Your task to perform on an android device: turn on improve location accuracy Image 0: 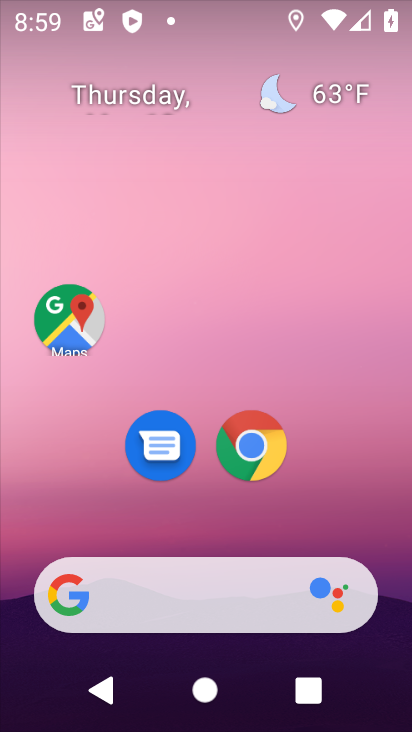
Step 0: drag from (196, 492) to (217, 132)
Your task to perform on an android device: turn on improve location accuracy Image 1: 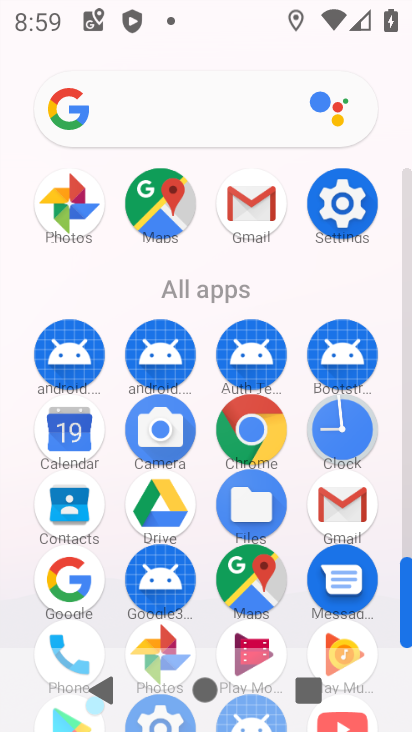
Step 1: click (342, 197)
Your task to perform on an android device: turn on improve location accuracy Image 2: 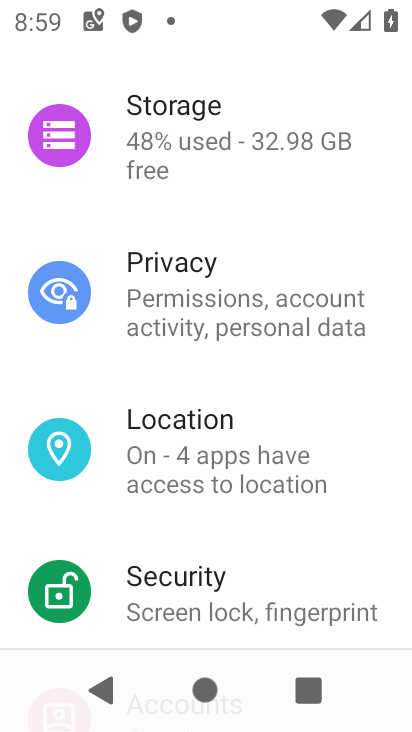
Step 2: click (190, 432)
Your task to perform on an android device: turn on improve location accuracy Image 3: 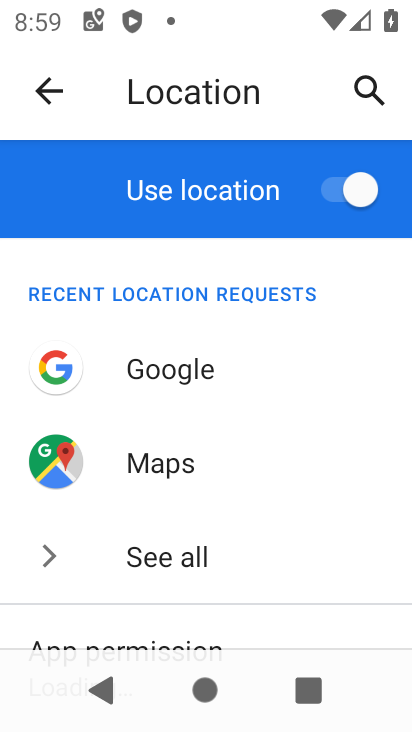
Step 3: drag from (192, 576) to (248, 312)
Your task to perform on an android device: turn on improve location accuracy Image 4: 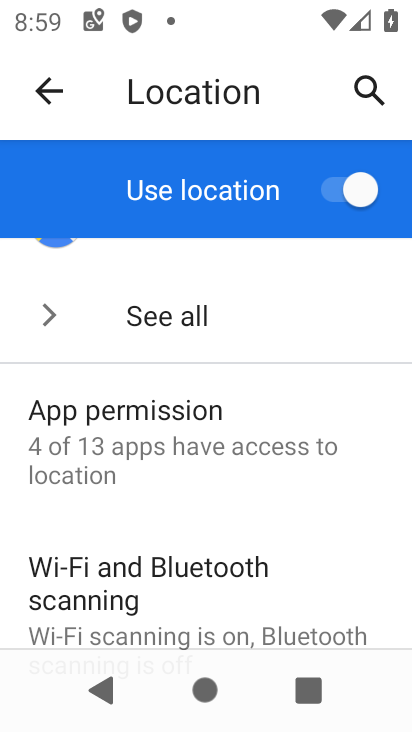
Step 4: drag from (187, 535) to (221, 258)
Your task to perform on an android device: turn on improve location accuracy Image 5: 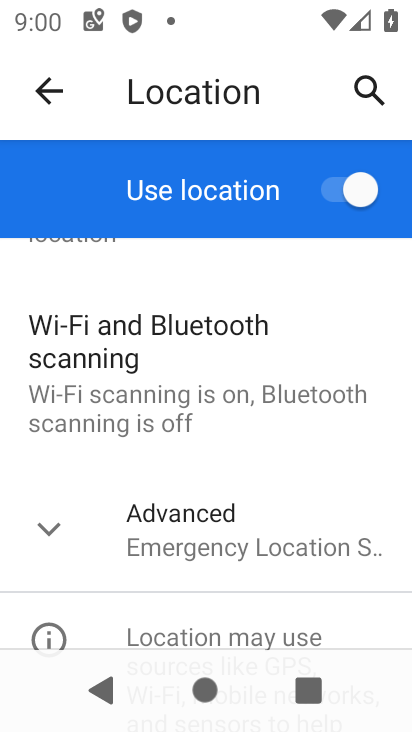
Step 5: click (181, 547)
Your task to perform on an android device: turn on improve location accuracy Image 6: 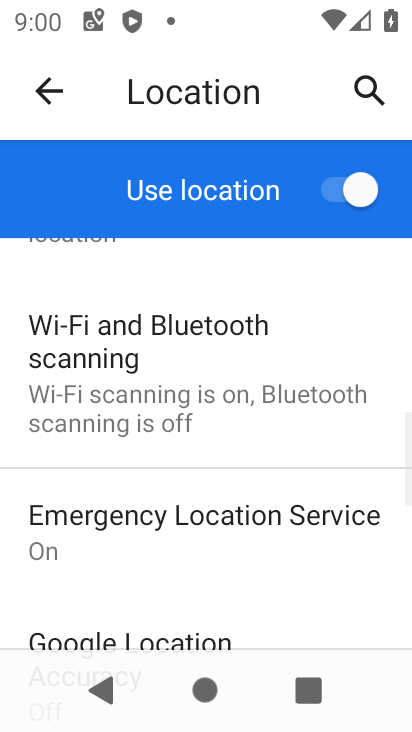
Step 6: drag from (178, 565) to (227, 363)
Your task to perform on an android device: turn on improve location accuracy Image 7: 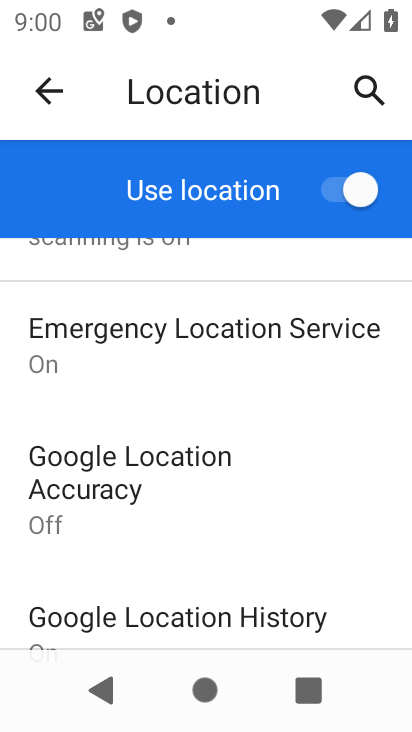
Step 7: click (175, 498)
Your task to perform on an android device: turn on improve location accuracy Image 8: 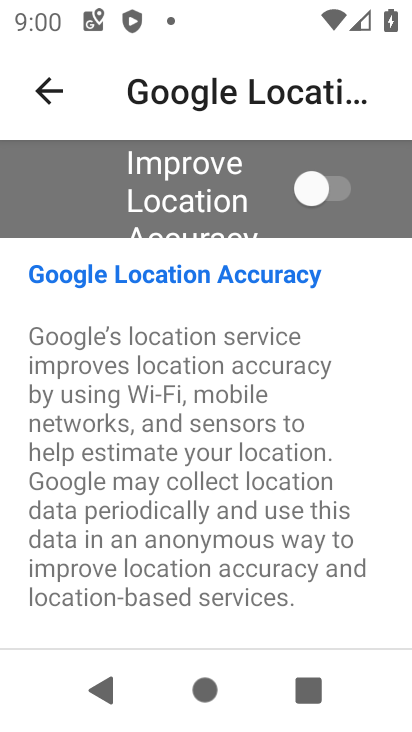
Step 8: click (321, 190)
Your task to perform on an android device: turn on improve location accuracy Image 9: 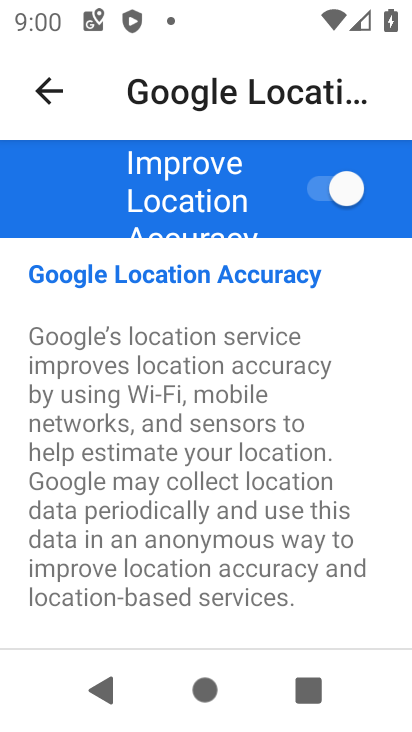
Step 9: task complete